Your task to perform on an android device: Go to privacy settings Image 0: 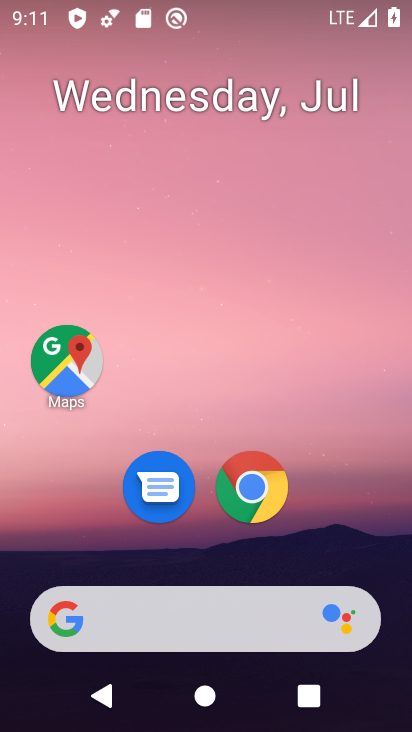
Step 0: drag from (210, 578) to (228, 0)
Your task to perform on an android device: Go to privacy settings Image 1: 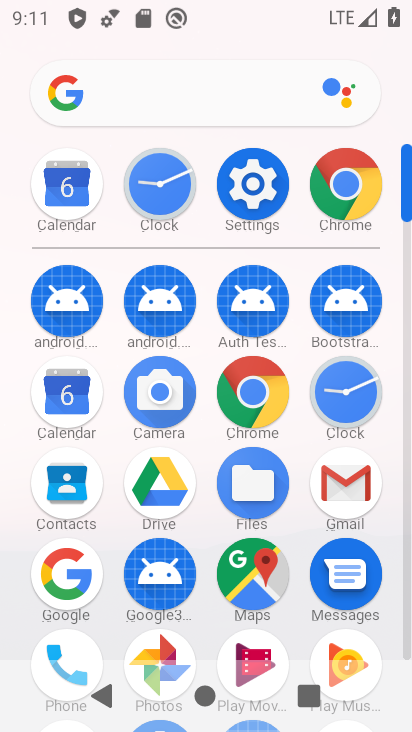
Step 1: click (252, 160)
Your task to perform on an android device: Go to privacy settings Image 2: 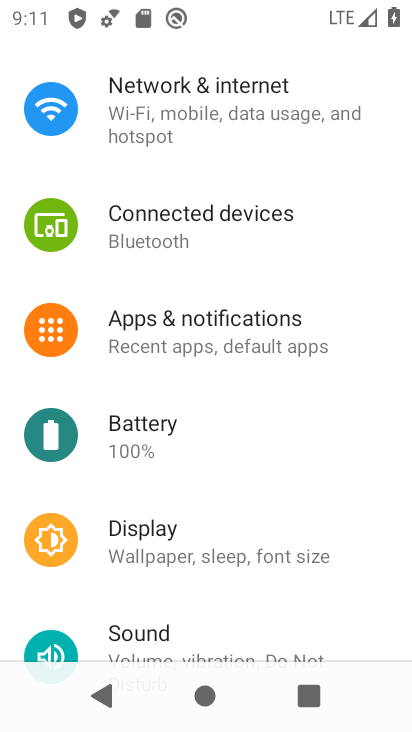
Step 2: drag from (275, 569) to (277, 104)
Your task to perform on an android device: Go to privacy settings Image 3: 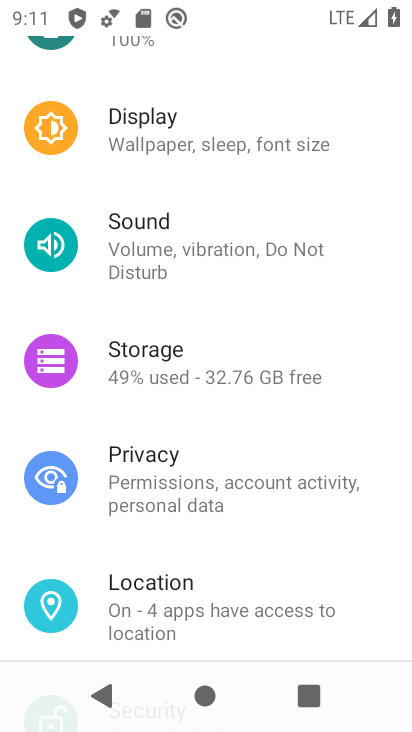
Step 3: click (196, 479)
Your task to perform on an android device: Go to privacy settings Image 4: 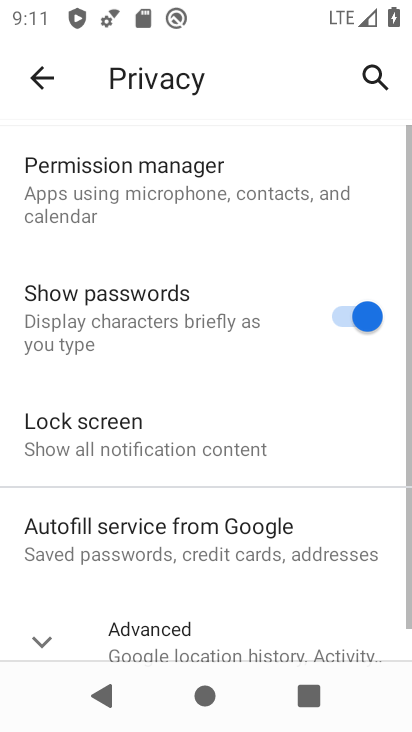
Step 4: click (189, 633)
Your task to perform on an android device: Go to privacy settings Image 5: 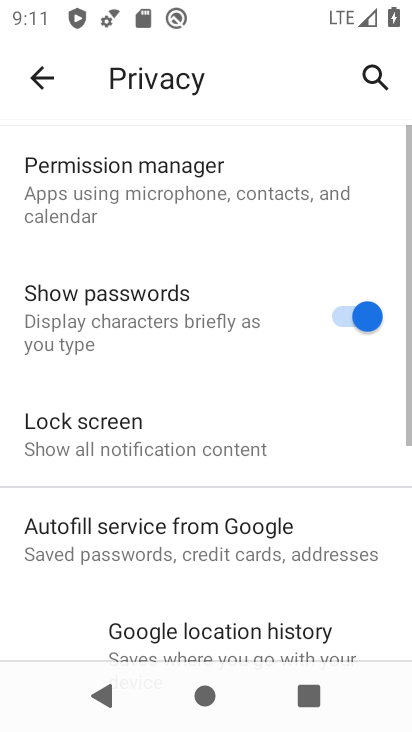
Step 5: task complete